Your task to perform on an android device: change the clock style Image 0: 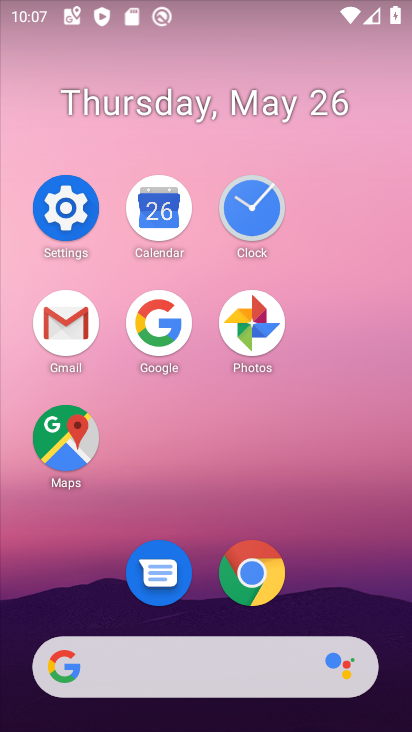
Step 0: click (241, 207)
Your task to perform on an android device: change the clock style Image 1: 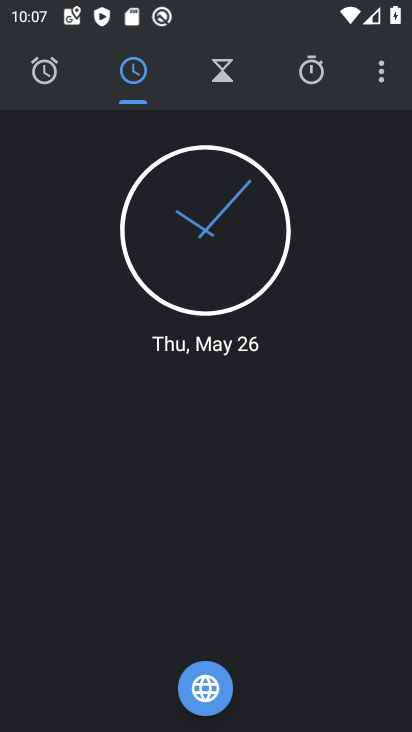
Step 1: click (378, 57)
Your task to perform on an android device: change the clock style Image 2: 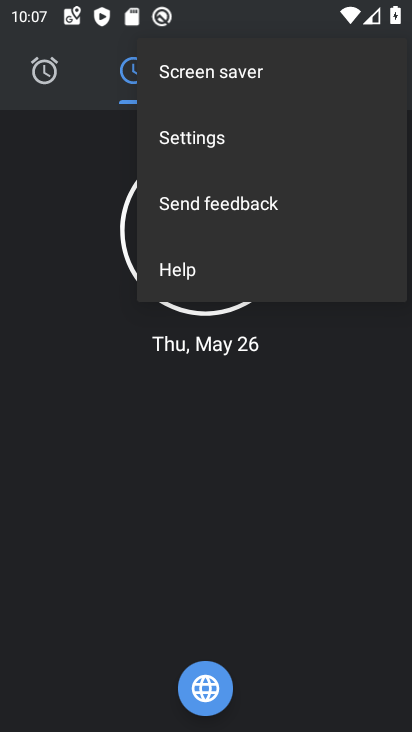
Step 2: click (185, 133)
Your task to perform on an android device: change the clock style Image 3: 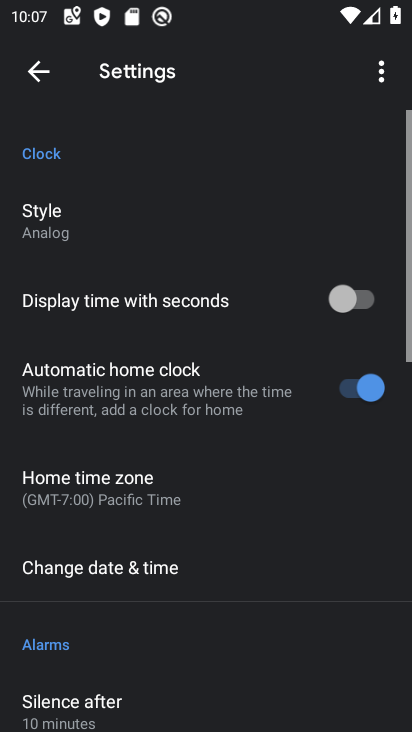
Step 3: click (107, 210)
Your task to perform on an android device: change the clock style Image 4: 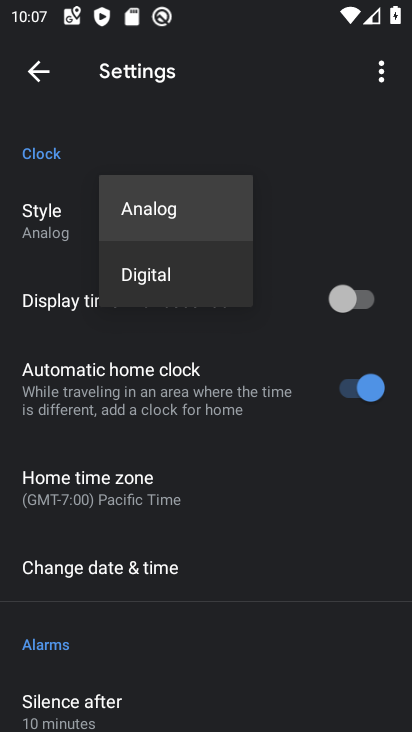
Step 4: click (144, 269)
Your task to perform on an android device: change the clock style Image 5: 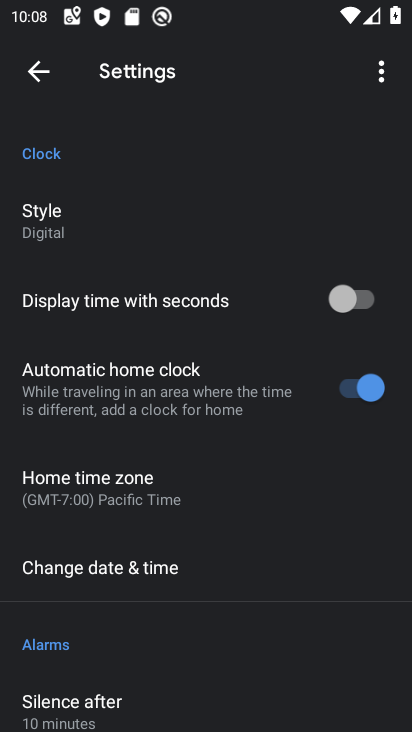
Step 5: task complete